Your task to perform on an android device: Open Chrome and go to the settings page Image 0: 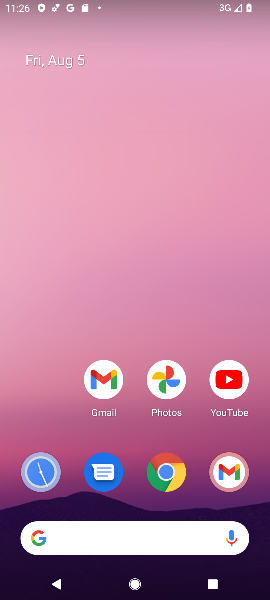
Step 0: click (160, 471)
Your task to perform on an android device: Open Chrome and go to the settings page Image 1: 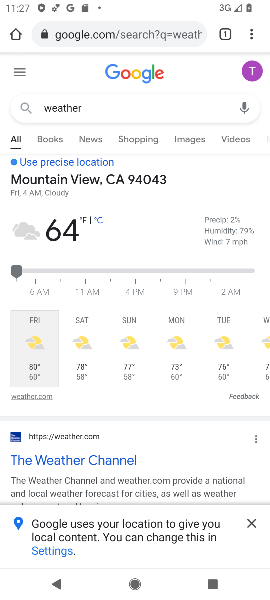
Step 1: click (252, 32)
Your task to perform on an android device: Open Chrome and go to the settings page Image 2: 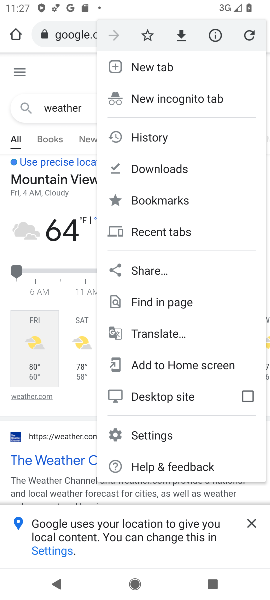
Step 2: click (179, 428)
Your task to perform on an android device: Open Chrome and go to the settings page Image 3: 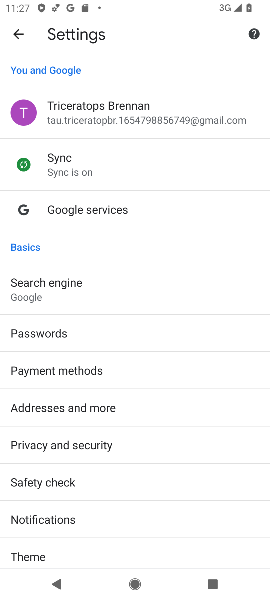
Step 3: press home button
Your task to perform on an android device: Open Chrome and go to the settings page Image 4: 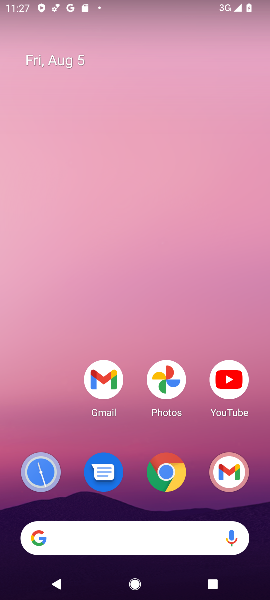
Step 4: click (175, 472)
Your task to perform on an android device: Open Chrome and go to the settings page Image 5: 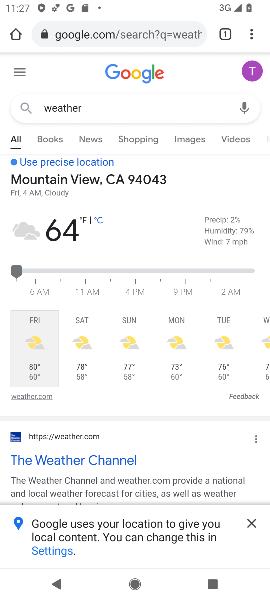
Step 5: click (254, 25)
Your task to perform on an android device: Open Chrome and go to the settings page Image 6: 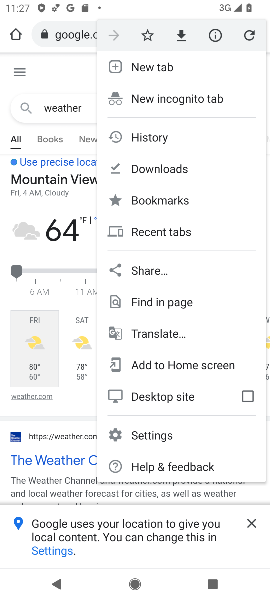
Step 6: click (169, 432)
Your task to perform on an android device: Open Chrome and go to the settings page Image 7: 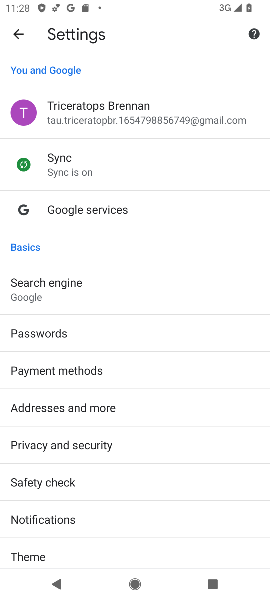
Step 7: task complete